Your task to perform on an android device: Do I have any events tomorrow? Image 0: 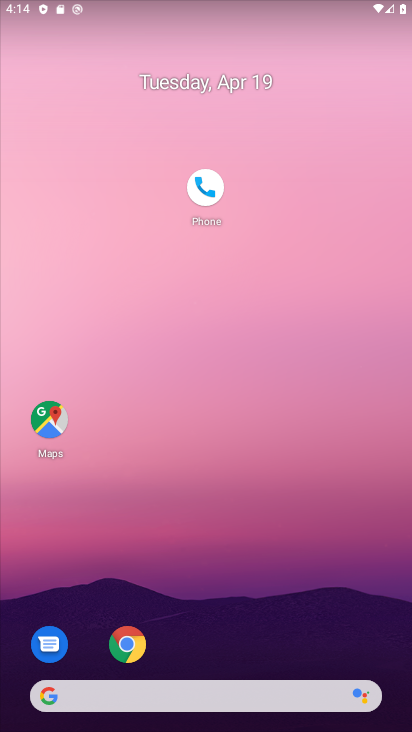
Step 0: drag from (317, 488) to (351, 13)
Your task to perform on an android device: Do I have any events tomorrow? Image 1: 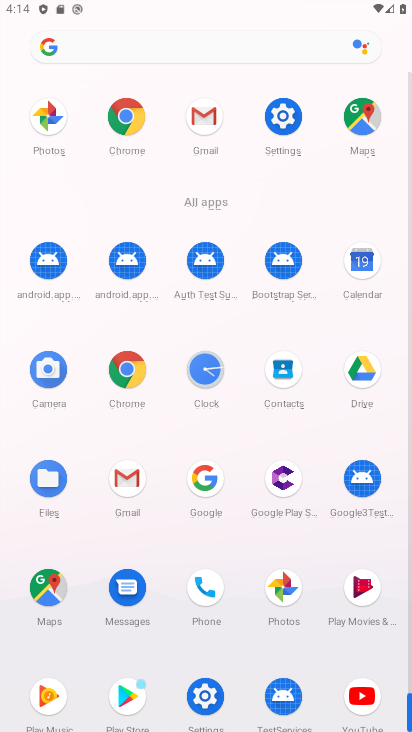
Step 1: click (370, 258)
Your task to perform on an android device: Do I have any events tomorrow? Image 2: 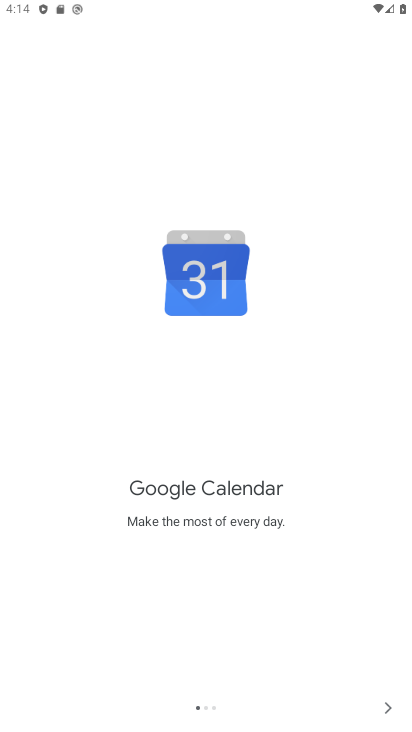
Step 2: click (392, 704)
Your task to perform on an android device: Do I have any events tomorrow? Image 3: 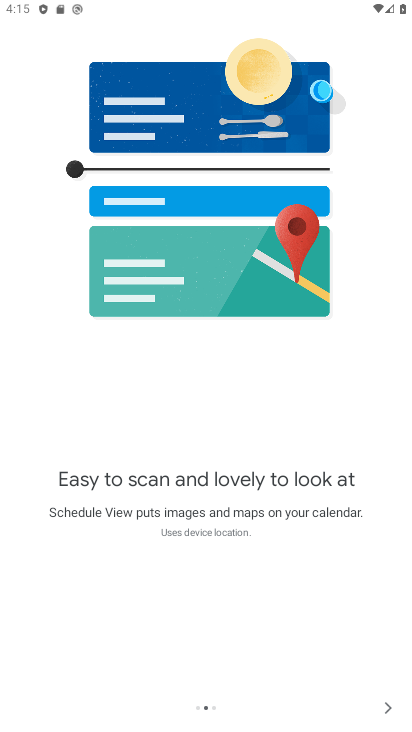
Step 3: click (388, 704)
Your task to perform on an android device: Do I have any events tomorrow? Image 4: 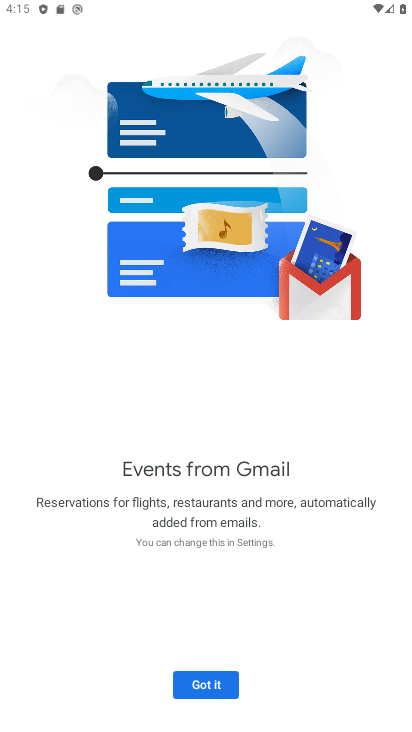
Step 4: click (210, 689)
Your task to perform on an android device: Do I have any events tomorrow? Image 5: 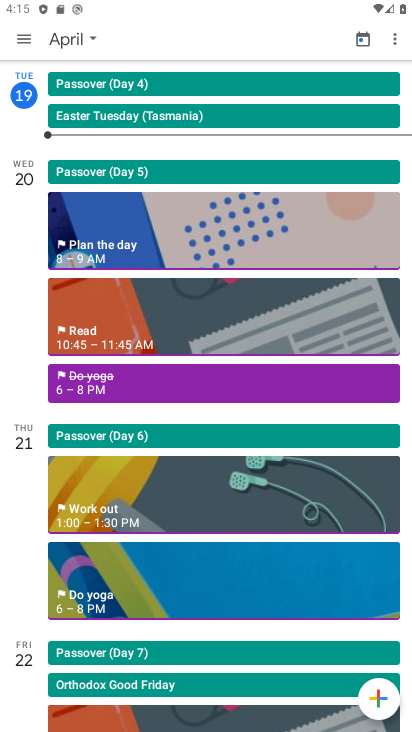
Step 5: click (32, 32)
Your task to perform on an android device: Do I have any events tomorrow? Image 6: 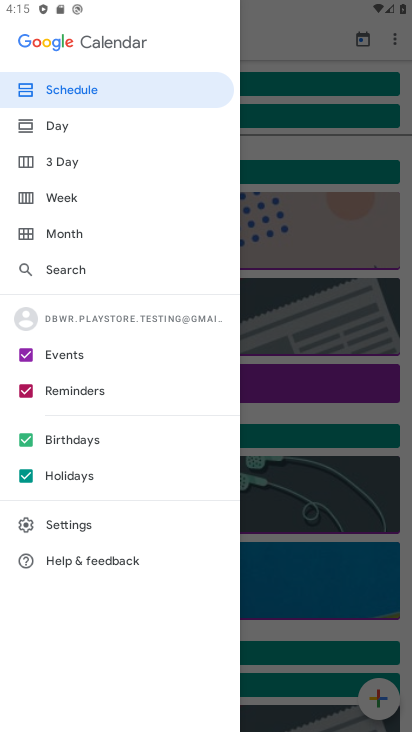
Step 6: click (29, 389)
Your task to perform on an android device: Do I have any events tomorrow? Image 7: 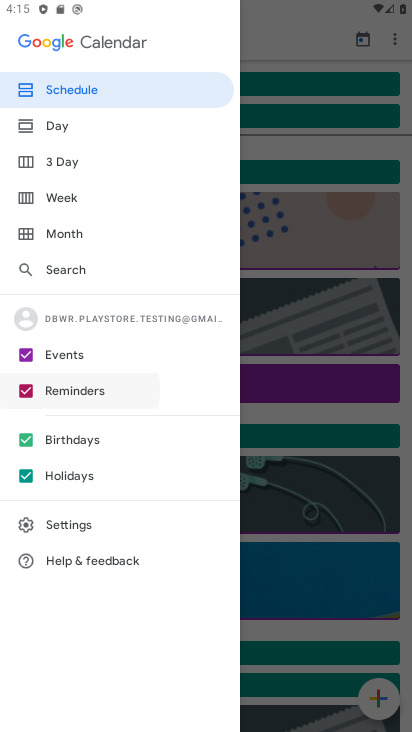
Step 7: click (23, 440)
Your task to perform on an android device: Do I have any events tomorrow? Image 8: 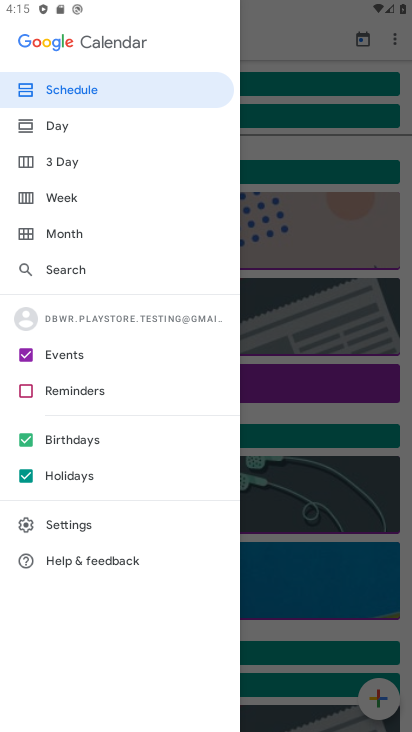
Step 8: click (25, 472)
Your task to perform on an android device: Do I have any events tomorrow? Image 9: 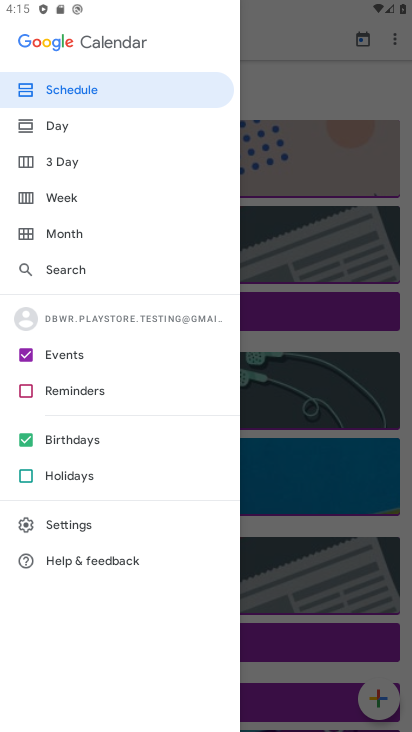
Step 9: click (24, 440)
Your task to perform on an android device: Do I have any events tomorrow? Image 10: 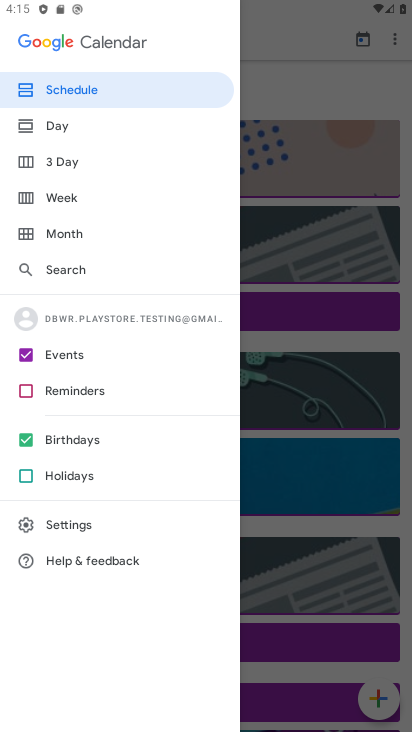
Step 10: click (22, 439)
Your task to perform on an android device: Do I have any events tomorrow? Image 11: 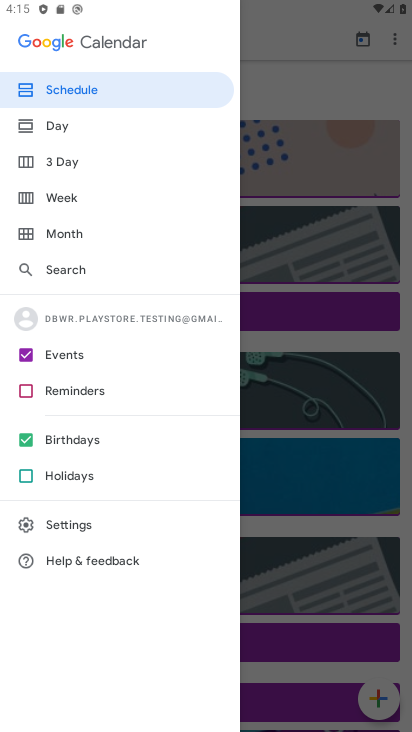
Step 11: click (26, 439)
Your task to perform on an android device: Do I have any events tomorrow? Image 12: 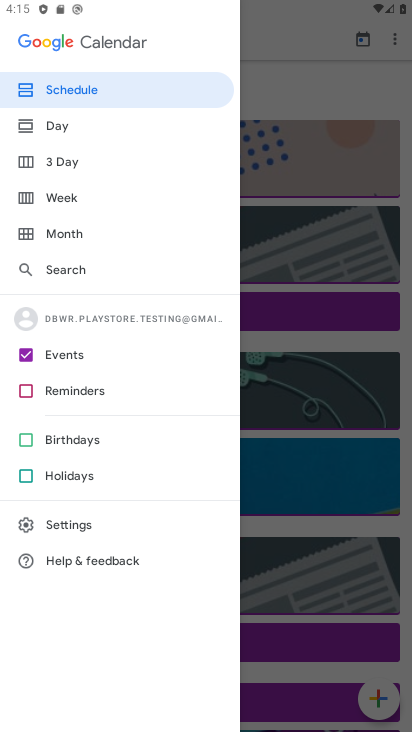
Step 12: click (85, 90)
Your task to perform on an android device: Do I have any events tomorrow? Image 13: 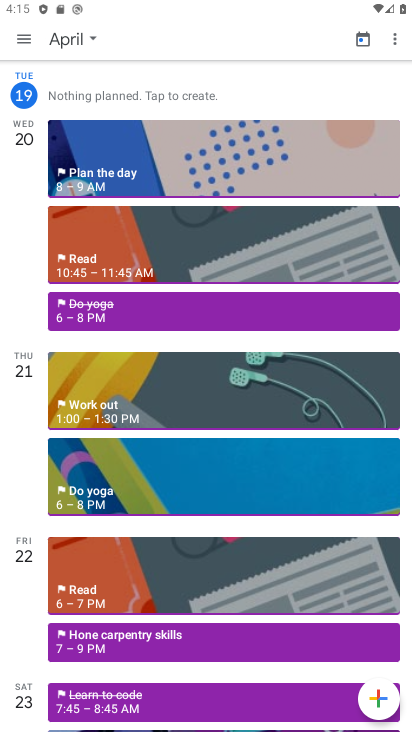
Step 13: task complete